Your task to perform on an android device: Go to Android settings Image 0: 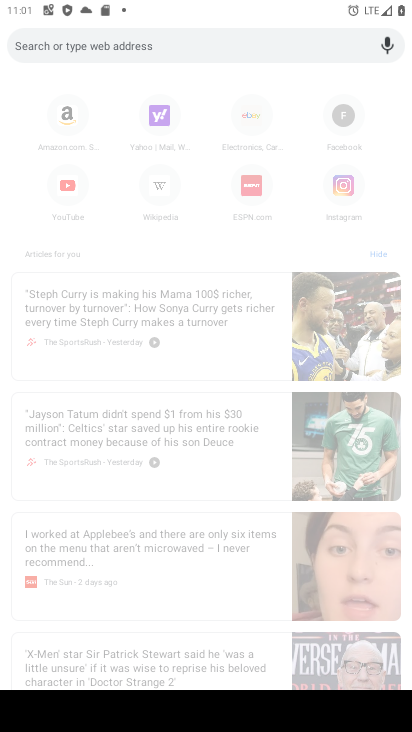
Step 0: press home button
Your task to perform on an android device: Go to Android settings Image 1: 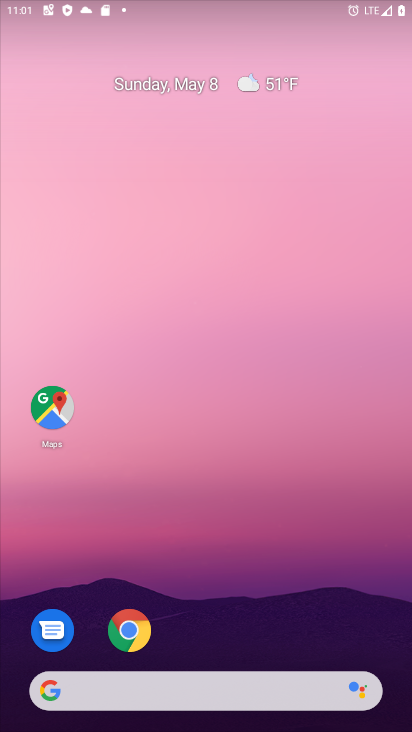
Step 1: drag from (366, 622) to (230, 105)
Your task to perform on an android device: Go to Android settings Image 2: 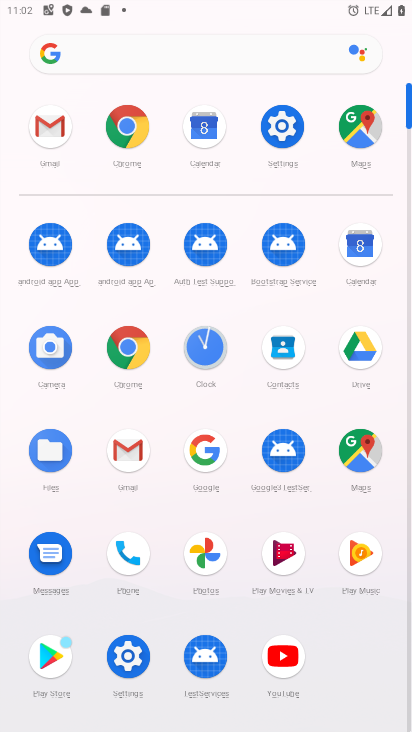
Step 2: click (123, 657)
Your task to perform on an android device: Go to Android settings Image 3: 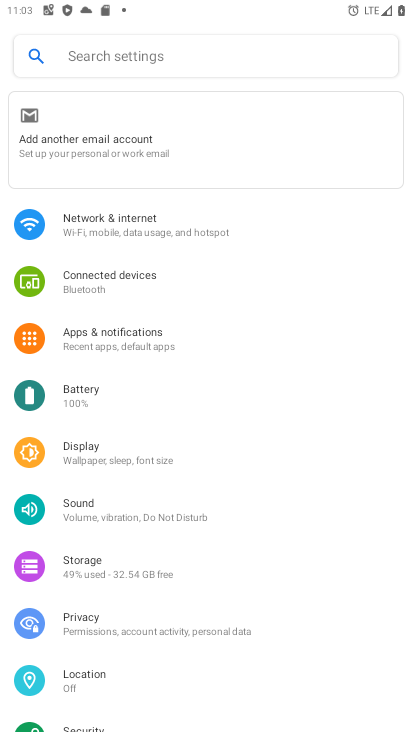
Step 3: drag from (158, 683) to (218, 51)
Your task to perform on an android device: Go to Android settings Image 4: 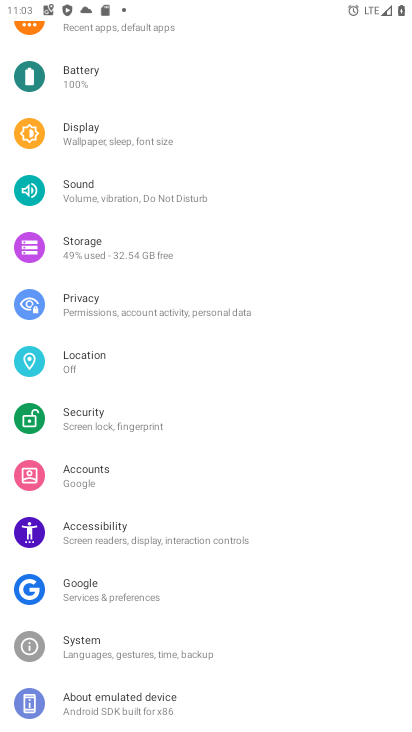
Step 4: click (127, 697)
Your task to perform on an android device: Go to Android settings Image 5: 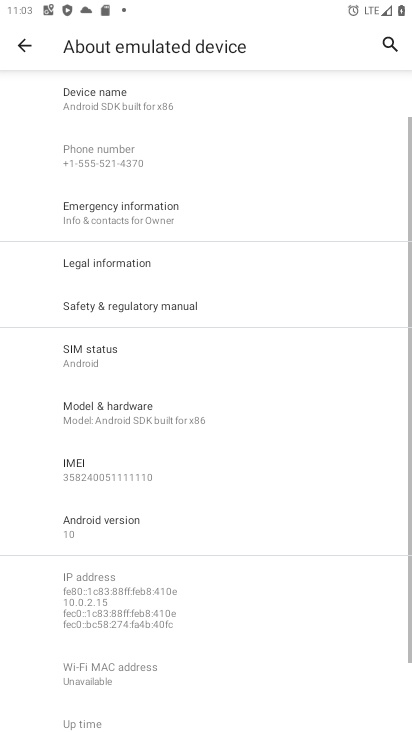
Step 5: drag from (138, 625) to (214, 441)
Your task to perform on an android device: Go to Android settings Image 6: 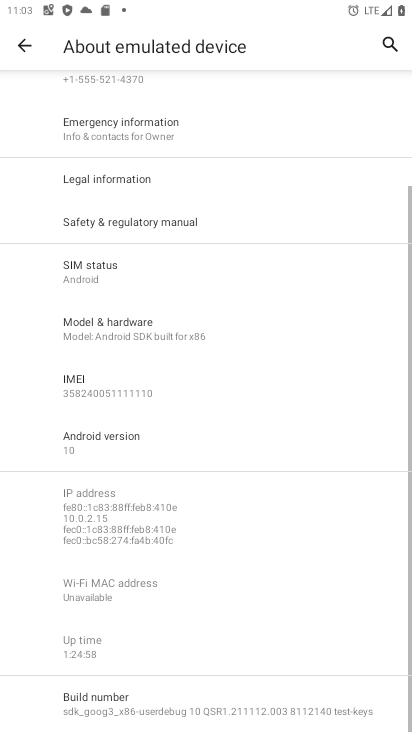
Step 6: click (79, 455)
Your task to perform on an android device: Go to Android settings Image 7: 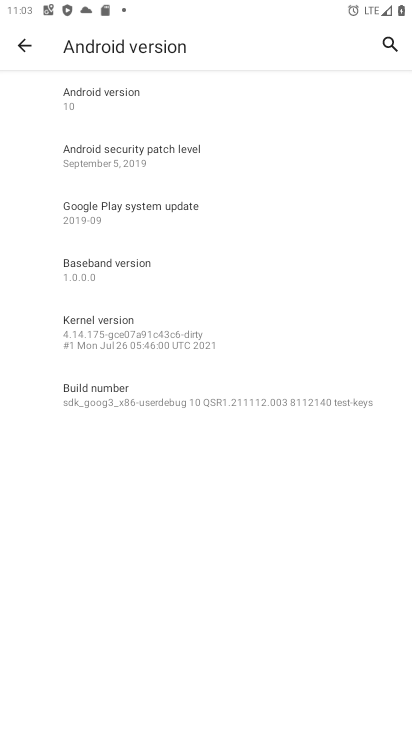
Step 7: task complete